Your task to perform on an android device: turn smart compose on in the gmail app Image 0: 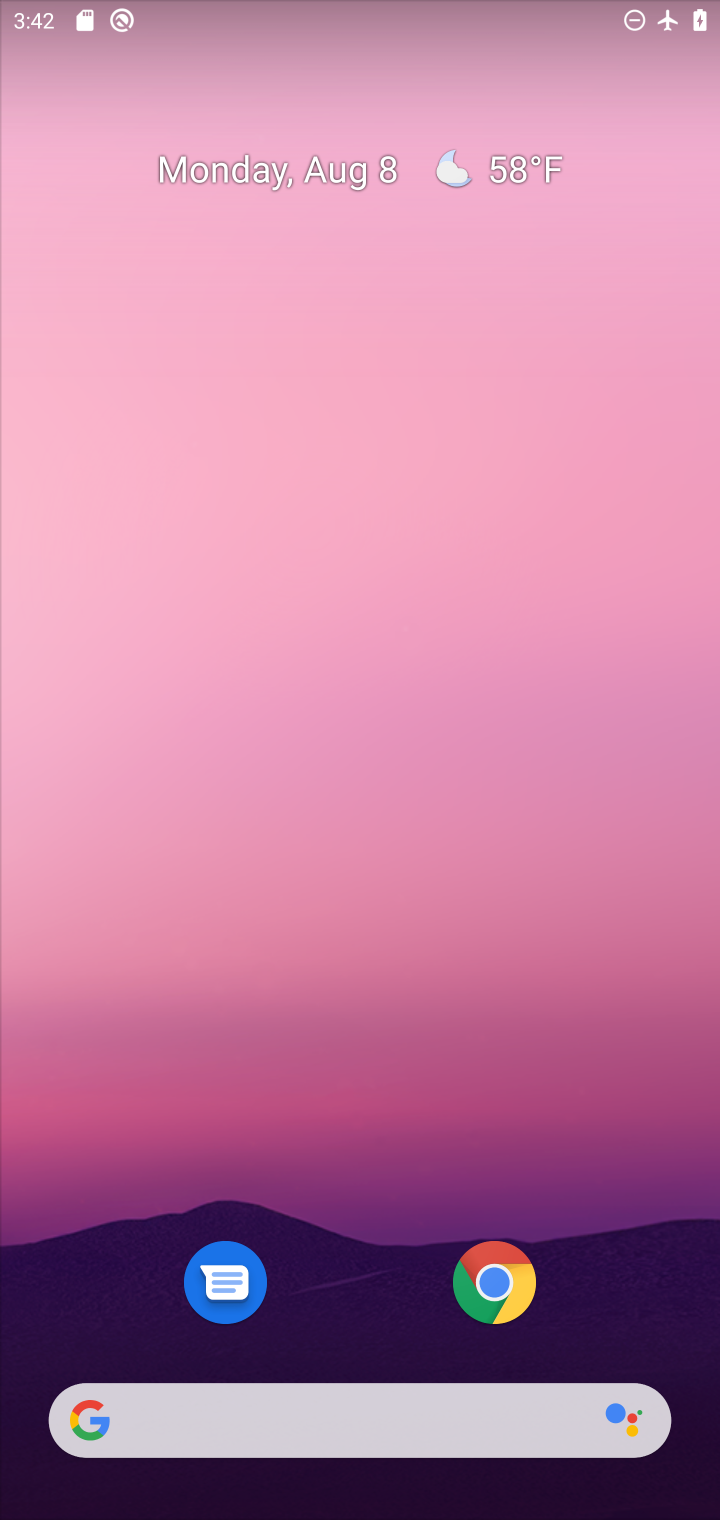
Step 0: drag from (368, 796) to (426, 179)
Your task to perform on an android device: turn smart compose on in the gmail app Image 1: 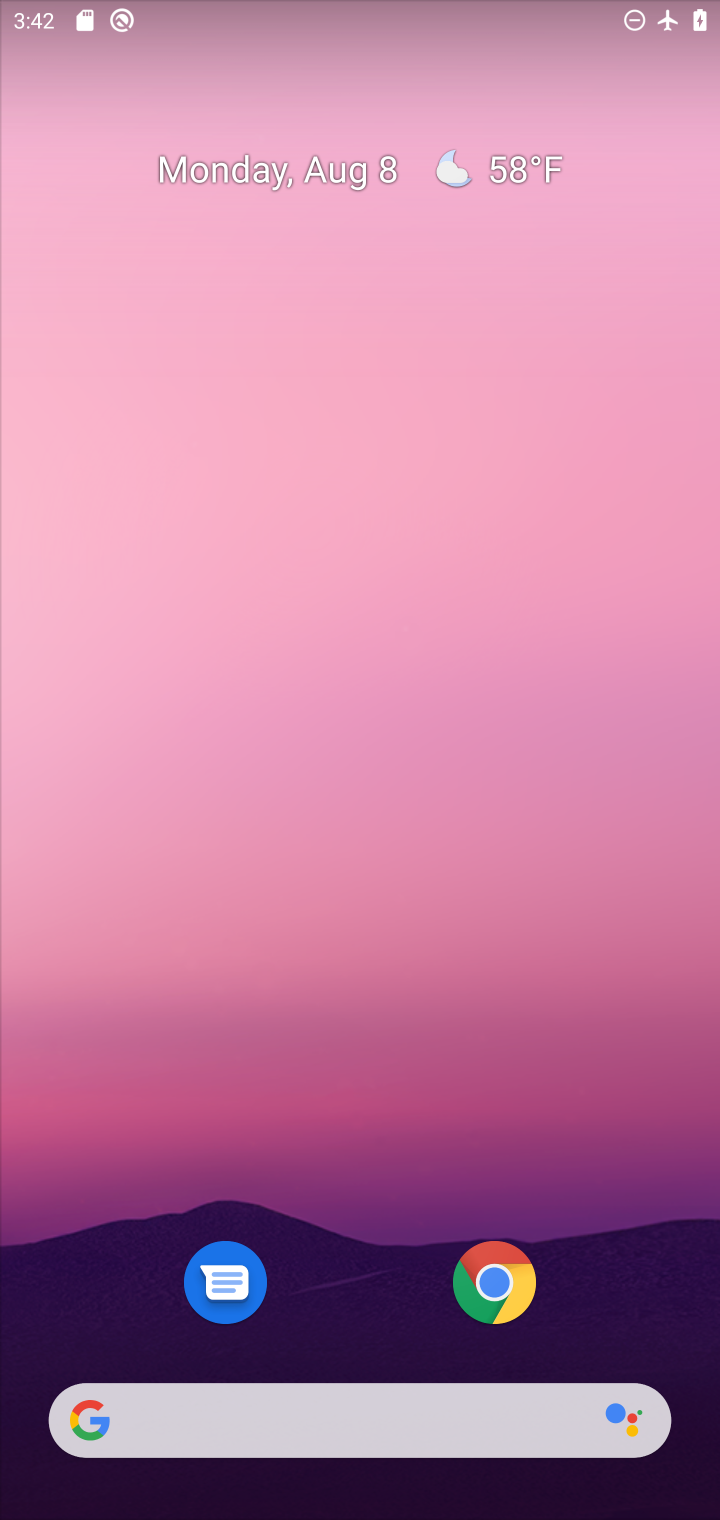
Step 1: drag from (326, 1275) to (572, 78)
Your task to perform on an android device: turn smart compose on in the gmail app Image 2: 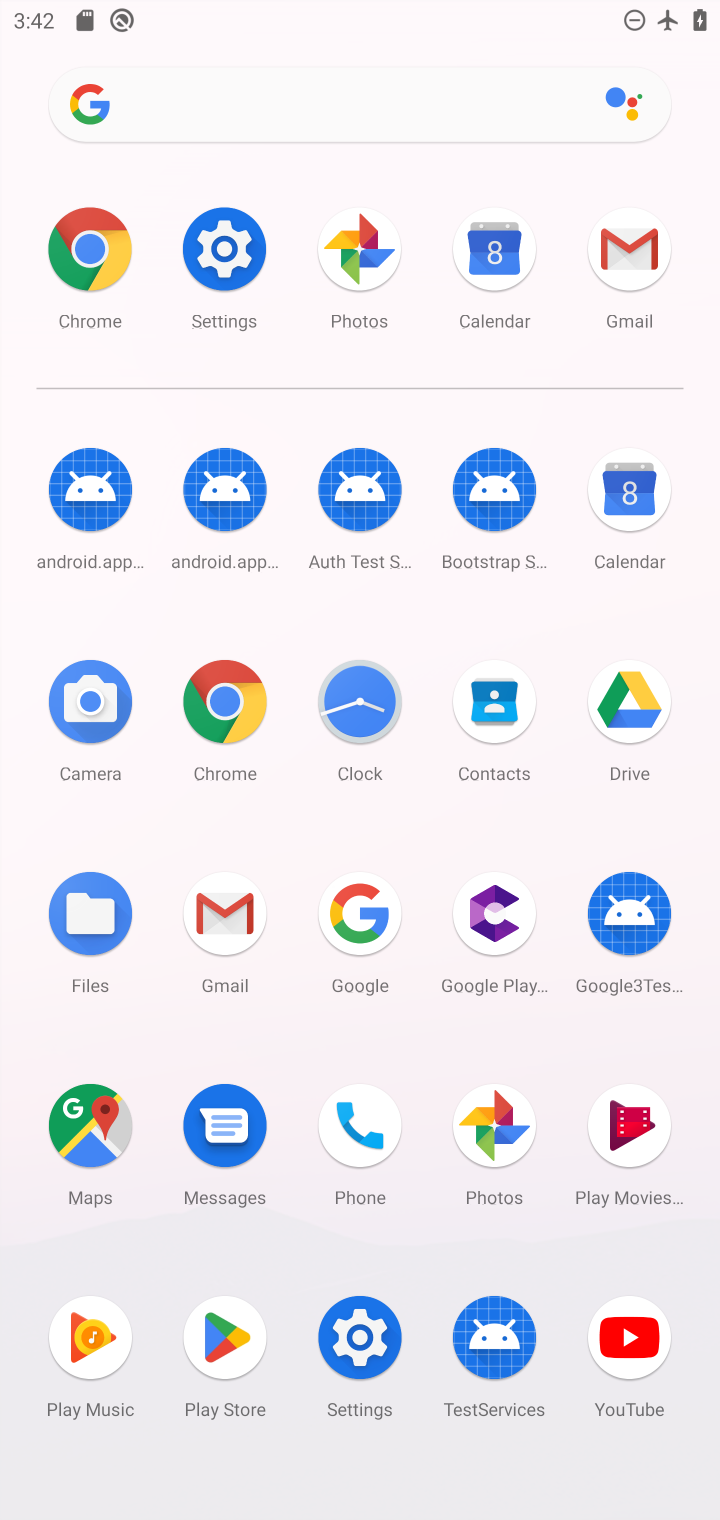
Step 2: click (237, 911)
Your task to perform on an android device: turn smart compose on in the gmail app Image 3: 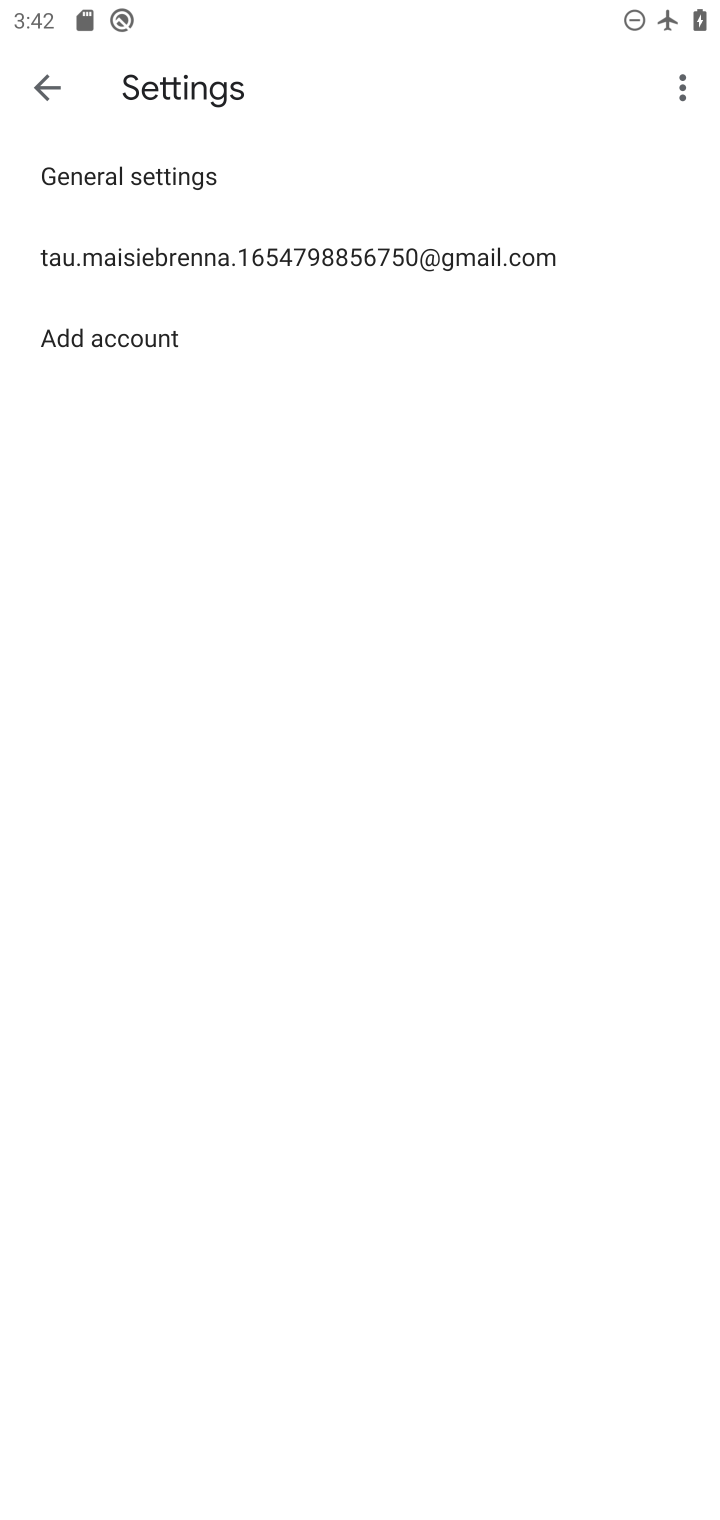
Step 3: press back button
Your task to perform on an android device: turn smart compose on in the gmail app Image 4: 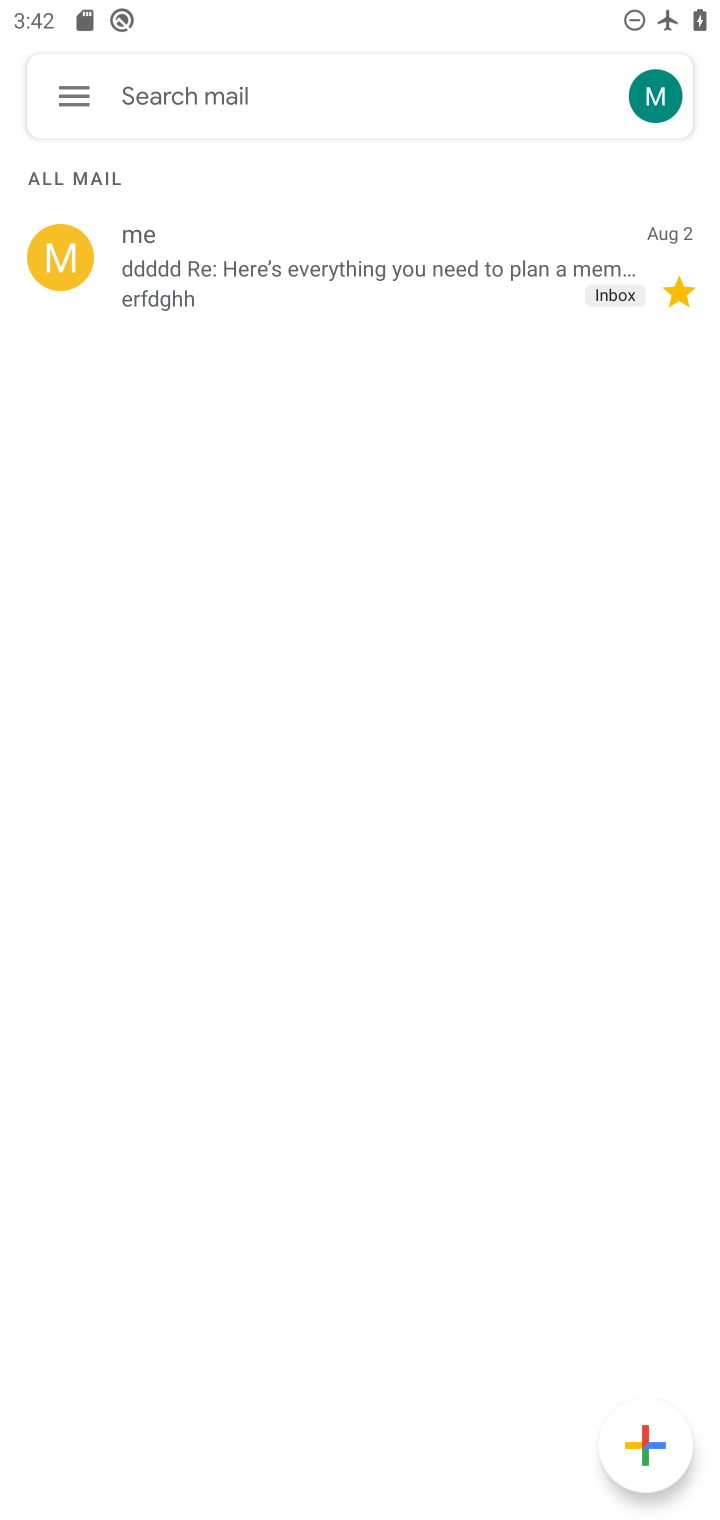
Step 4: click (74, 91)
Your task to perform on an android device: turn smart compose on in the gmail app Image 5: 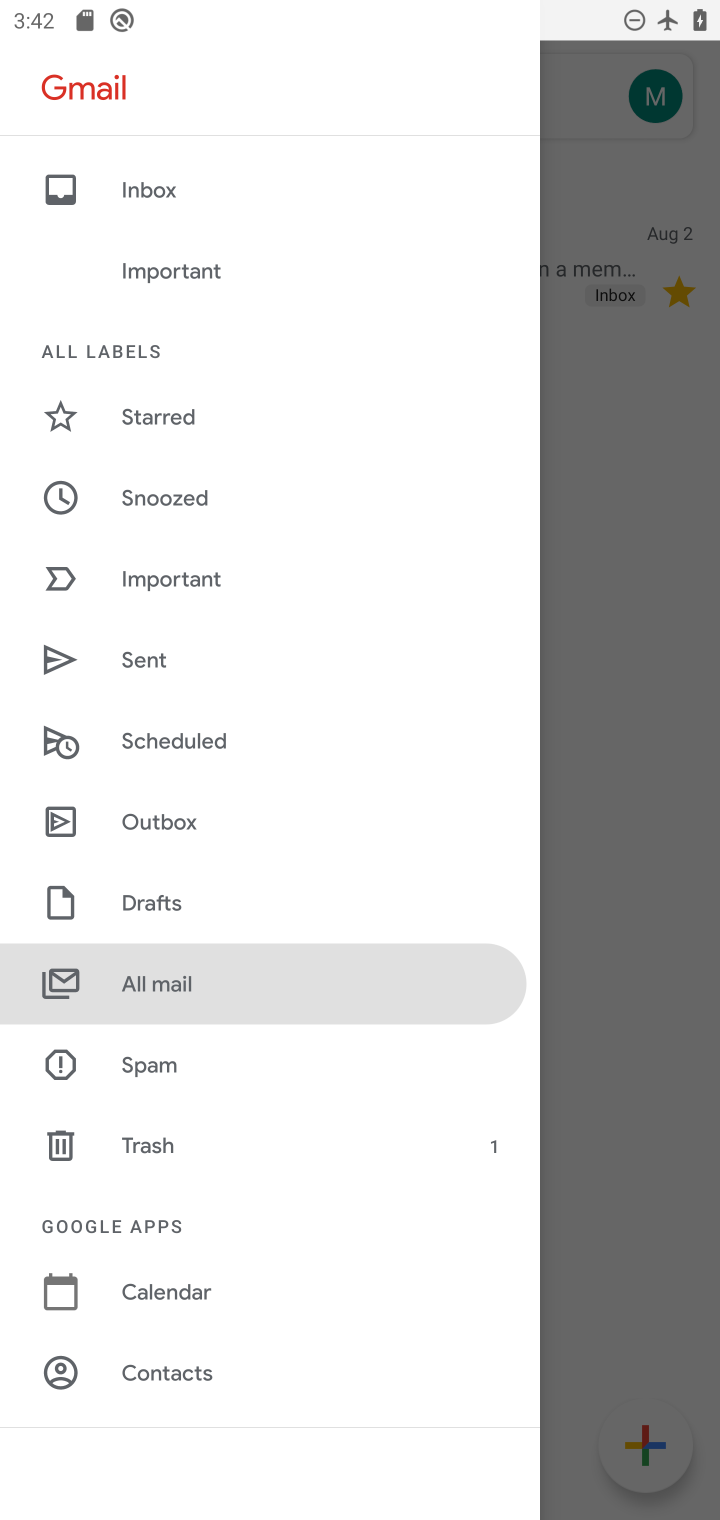
Step 5: drag from (161, 1316) to (330, 526)
Your task to perform on an android device: turn smart compose on in the gmail app Image 6: 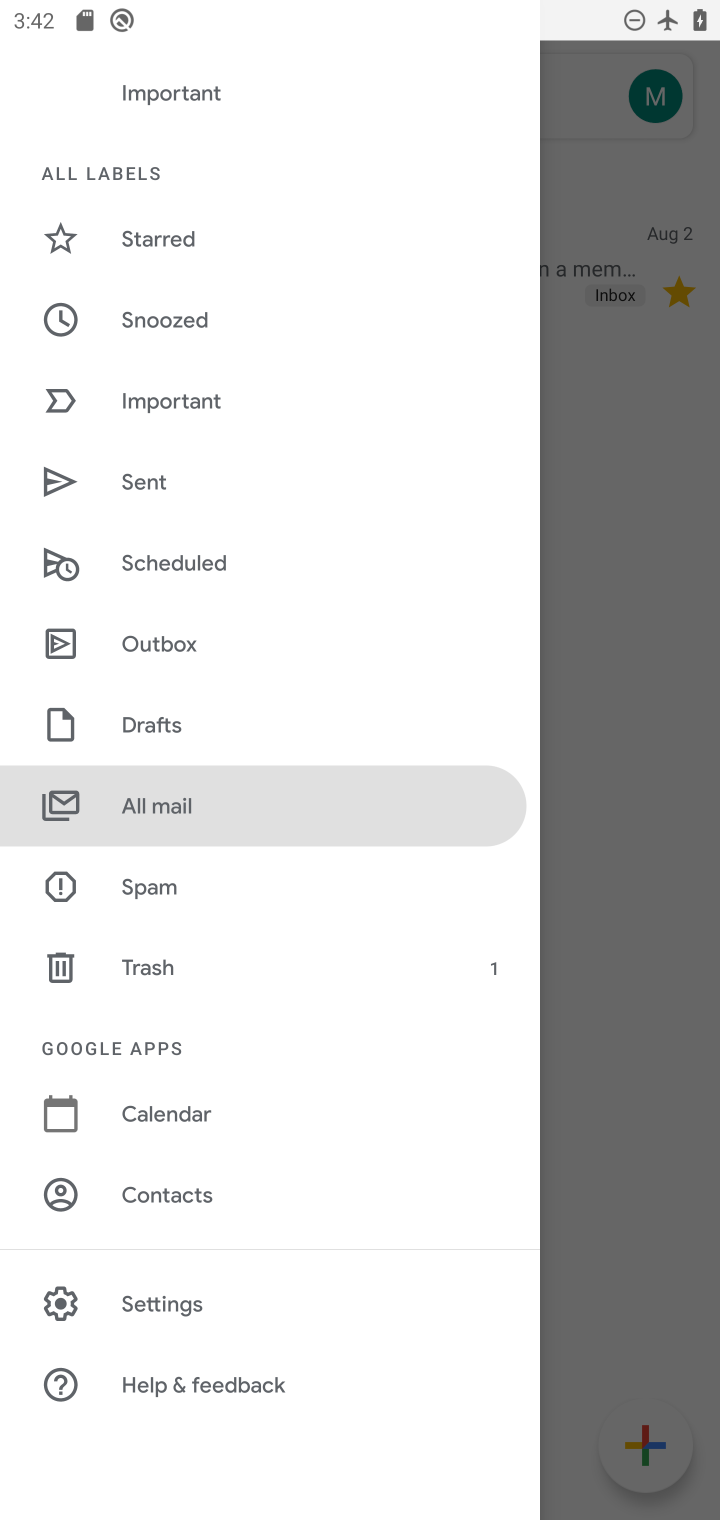
Step 6: click (151, 1302)
Your task to perform on an android device: turn smart compose on in the gmail app Image 7: 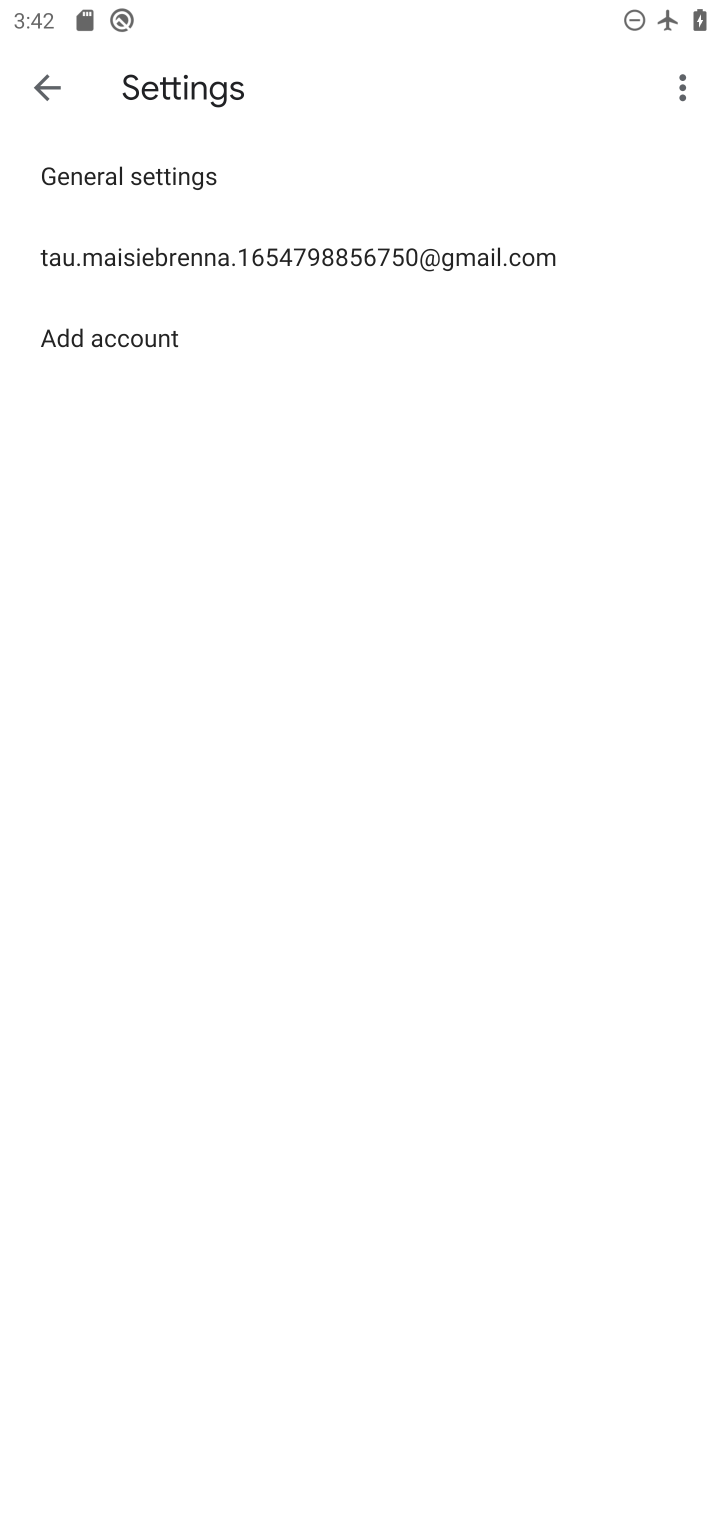
Step 7: click (466, 240)
Your task to perform on an android device: turn smart compose on in the gmail app Image 8: 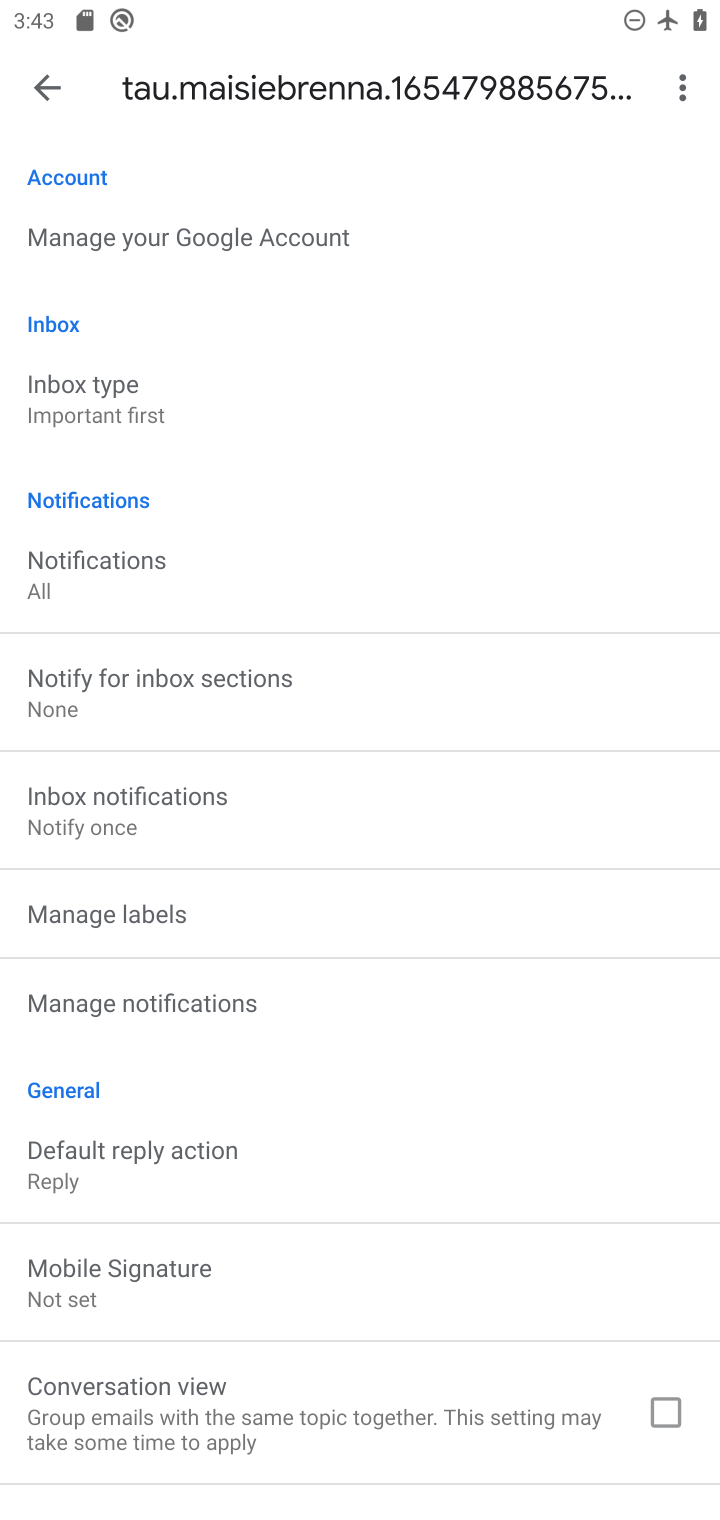
Step 8: task complete